Your task to perform on an android device: toggle improve location accuracy Image 0: 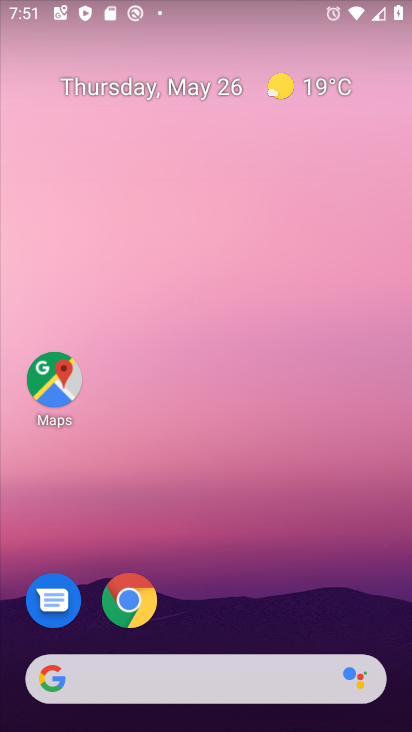
Step 0: press home button
Your task to perform on an android device: toggle improve location accuracy Image 1: 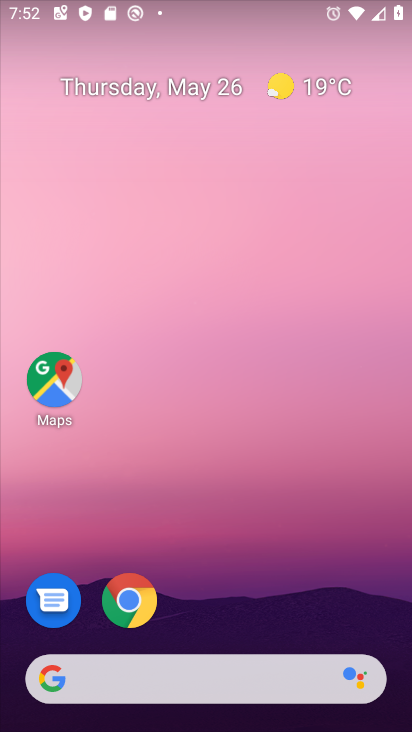
Step 1: drag from (203, 634) to (213, 188)
Your task to perform on an android device: toggle improve location accuracy Image 2: 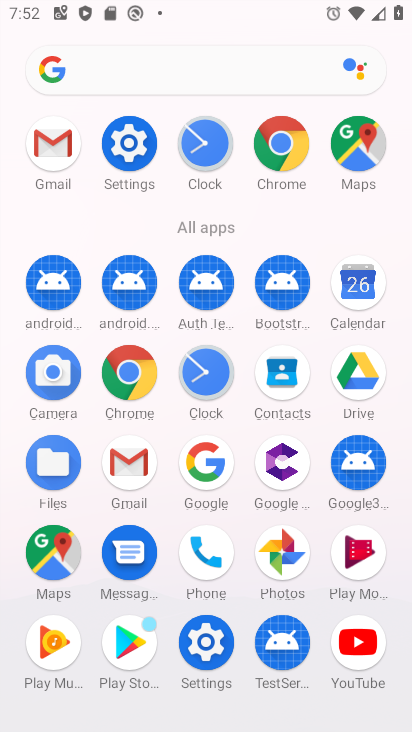
Step 2: click (199, 646)
Your task to perform on an android device: toggle improve location accuracy Image 3: 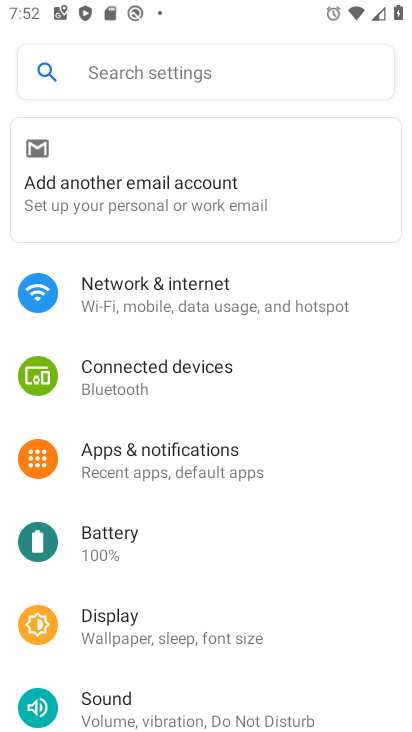
Step 3: drag from (243, 573) to (255, 279)
Your task to perform on an android device: toggle improve location accuracy Image 4: 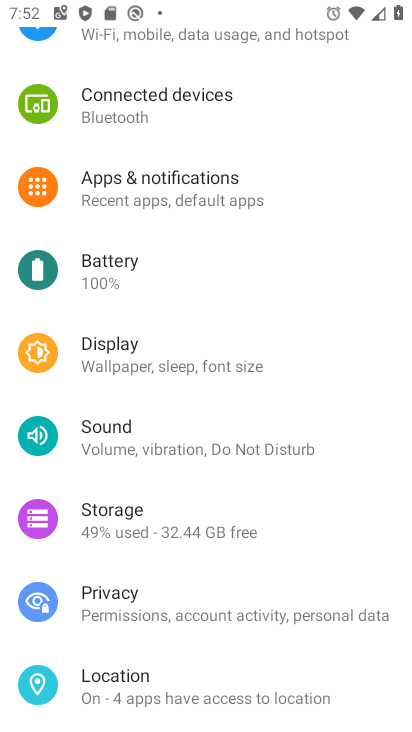
Step 4: click (135, 672)
Your task to perform on an android device: toggle improve location accuracy Image 5: 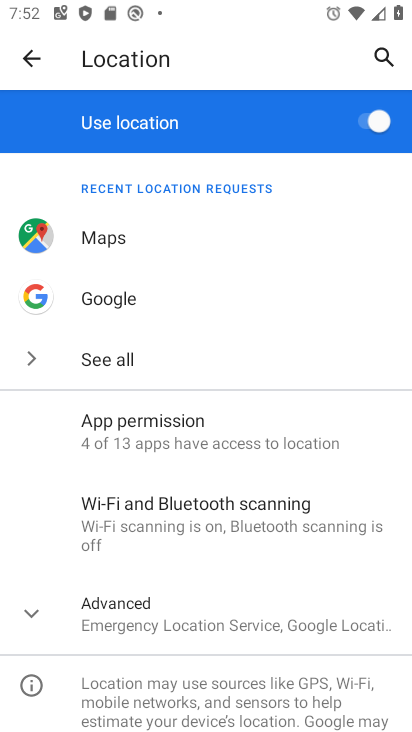
Step 5: click (154, 620)
Your task to perform on an android device: toggle improve location accuracy Image 6: 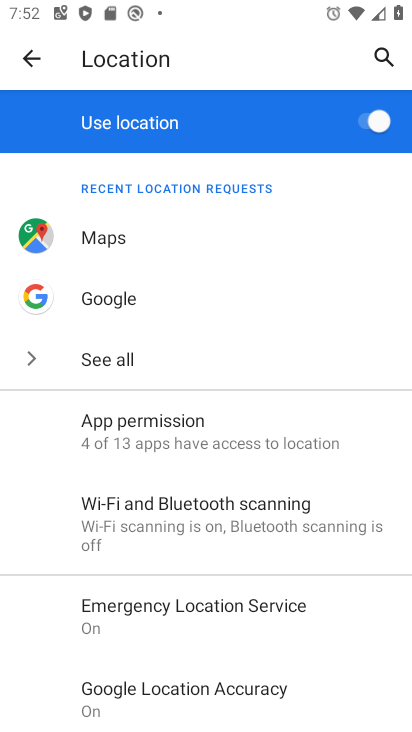
Step 6: click (189, 691)
Your task to perform on an android device: toggle improve location accuracy Image 7: 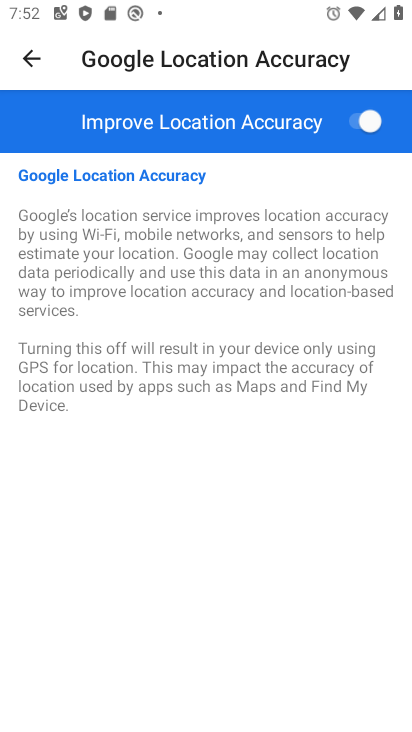
Step 7: click (368, 120)
Your task to perform on an android device: toggle improve location accuracy Image 8: 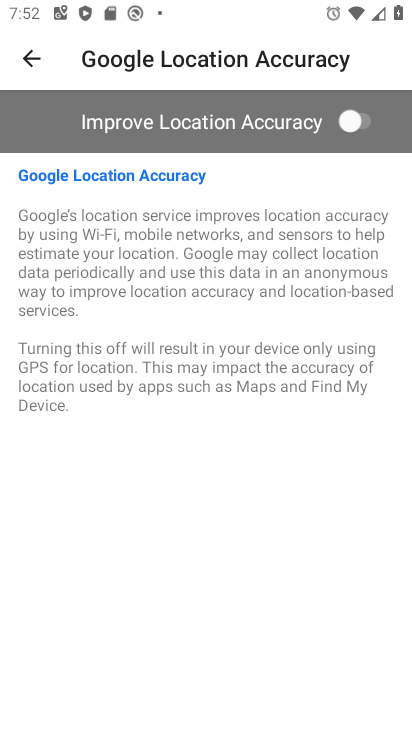
Step 8: task complete